Your task to perform on an android device: Find coffee shops on Maps Image 0: 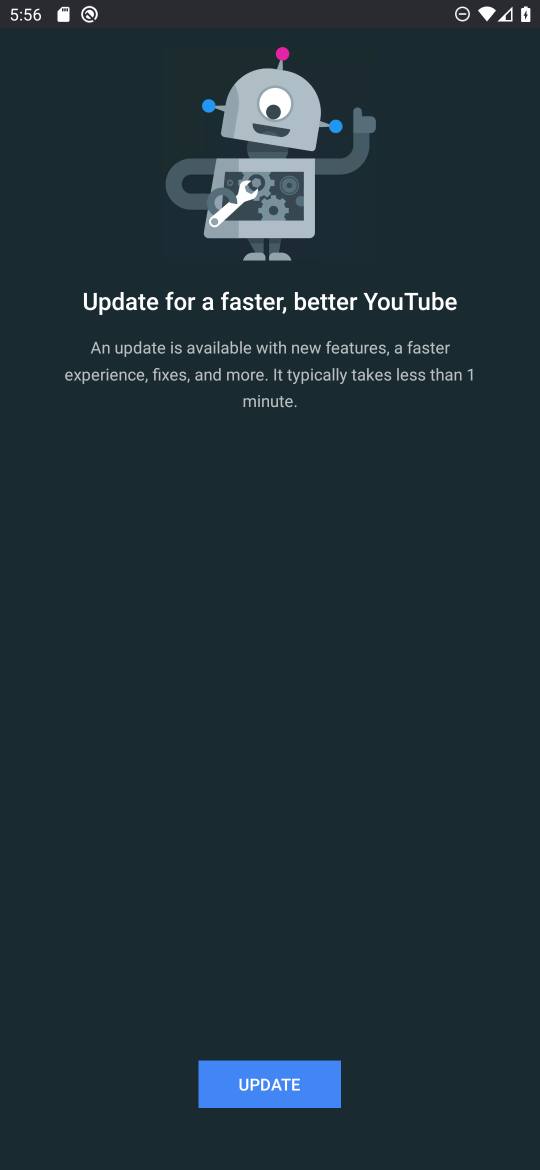
Step 0: press back button
Your task to perform on an android device: Find coffee shops on Maps Image 1: 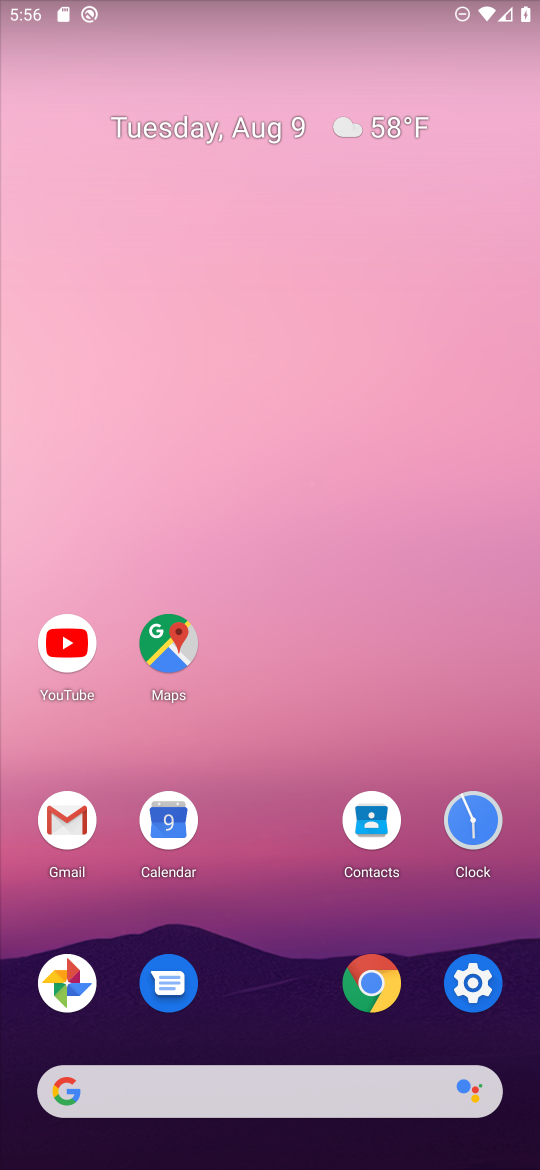
Step 1: click (203, 638)
Your task to perform on an android device: Find coffee shops on Maps Image 2: 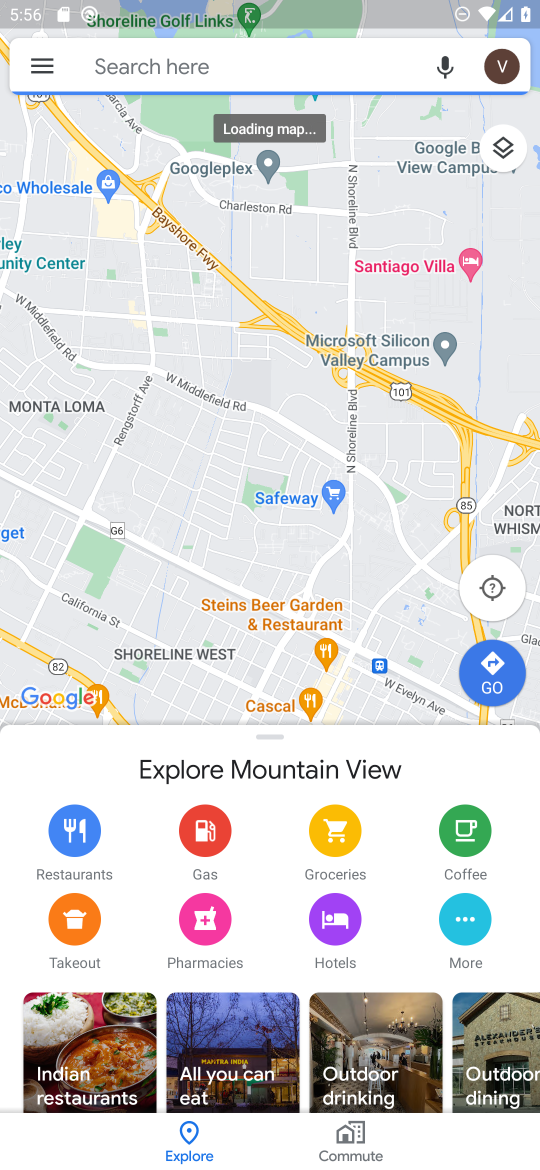
Step 2: click (223, 55)
Your task to perform on an android device: Find coffee shops on Maps Image 3: 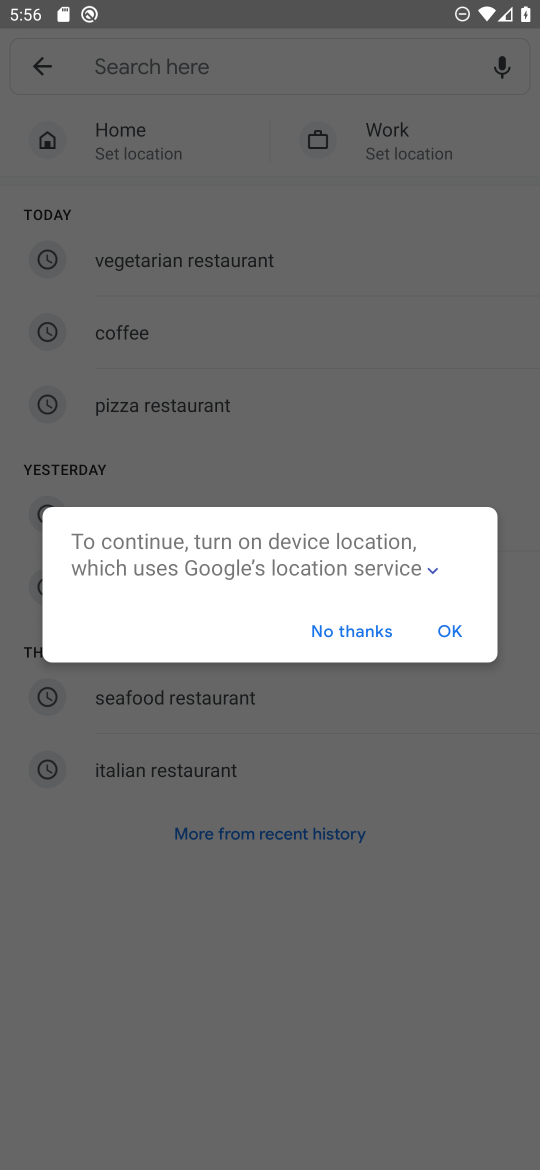
Step 3: click (450, 625)
Your task to perform on an android device: Find coffee shops on Maps Image 4: 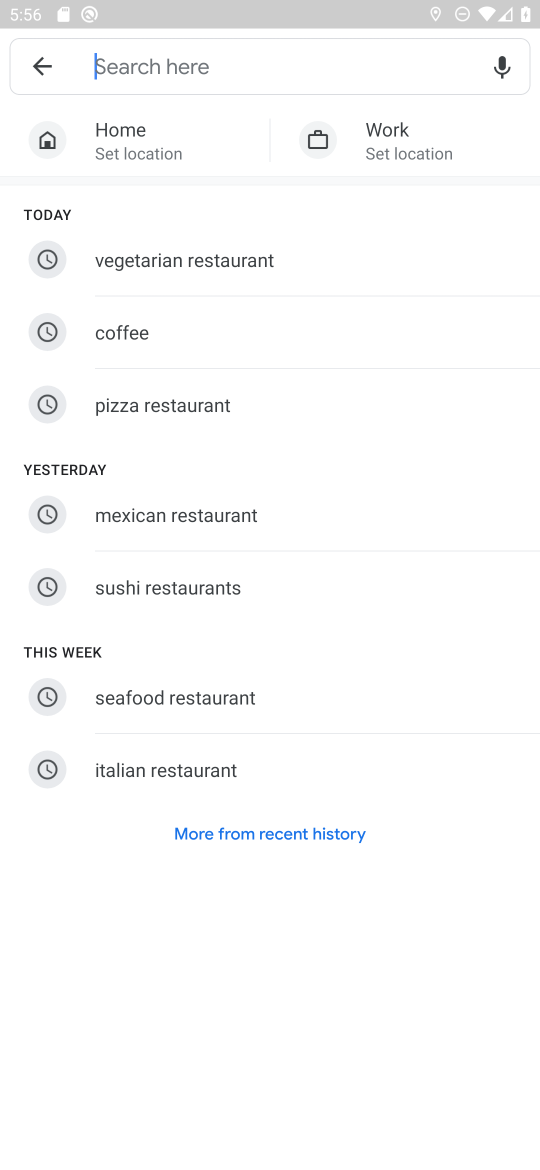
Step 4: click (142, 331)
Your task to perform on an android device: Find coffee shops on Maps Image 5: 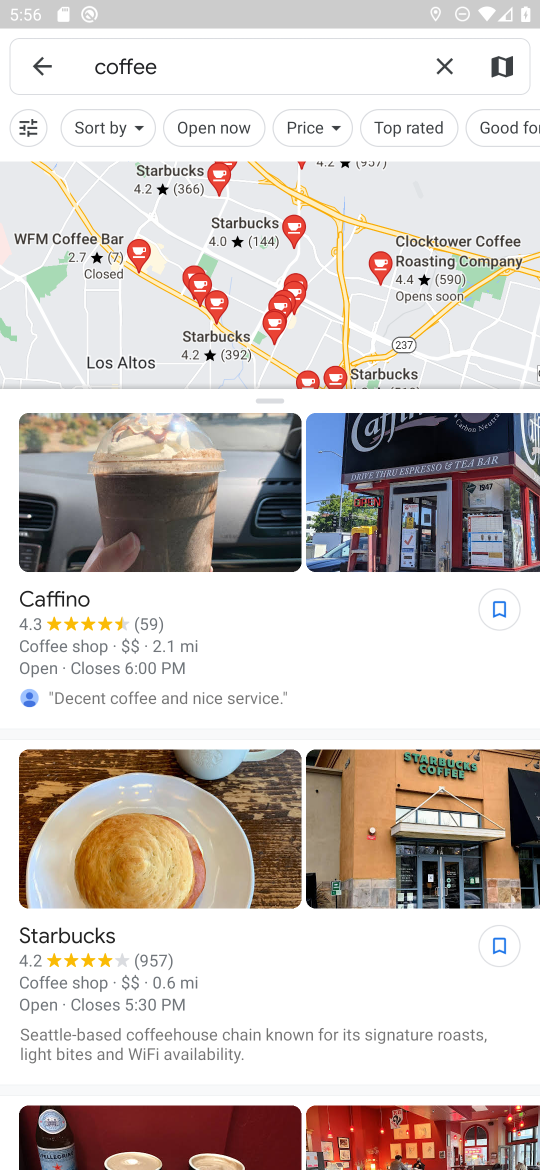
Step 5: task complete